Your task to perform on an android device: What's on my calendar today? Image 0: 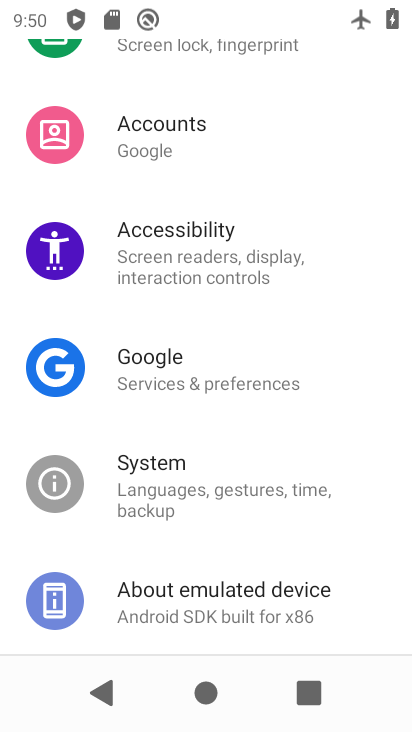
Step 0: press home button
Your task to perform on an android device: What's on my calendar today? Image 1: 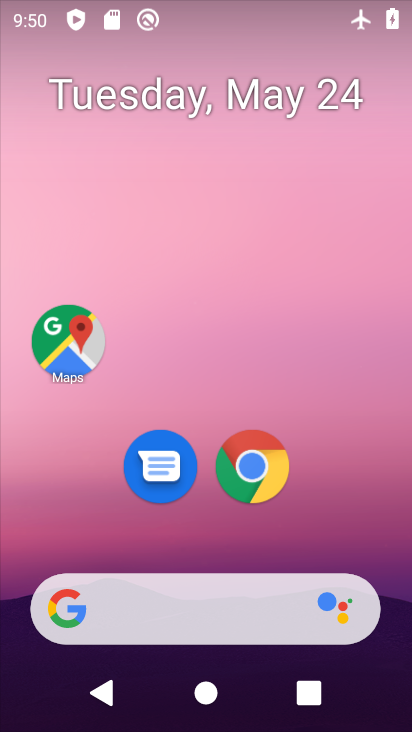
Step 1: drag from (211, 544) to (205, 47)
Your task to perform on an android device: What's on my calendar today? Image 2: 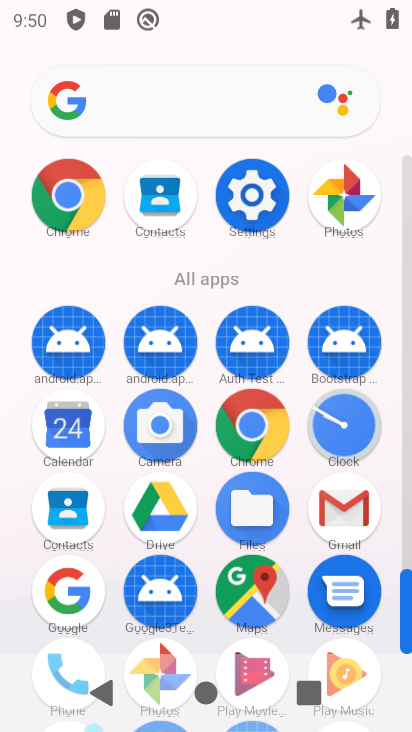
Step 2: click (67, 443)
Your task to perform on an android device: What's on my calendar today? Image 3: 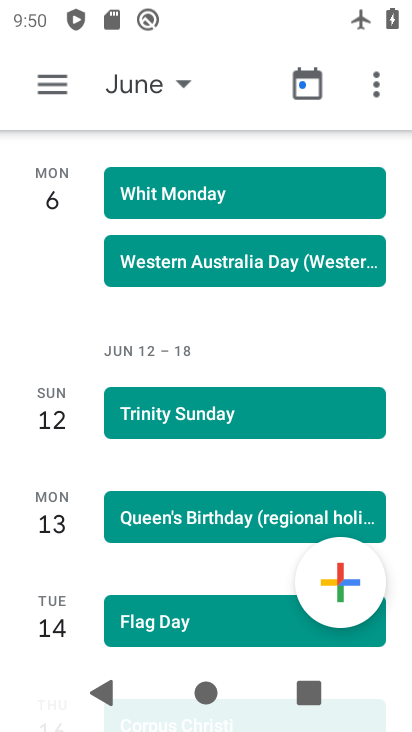
Step 3: click (61, 83)
Your task to perform on an android device: What's on my calendar today? Image 4: 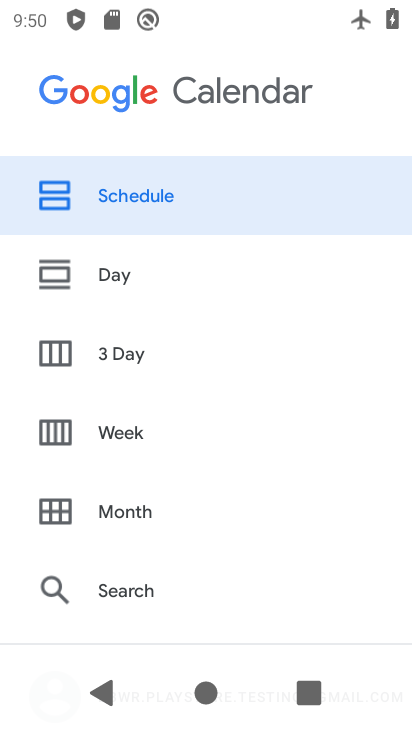
Step 4: click (128, 276)
Your task to perform on an android device: What's on my calendar today? Image 5: 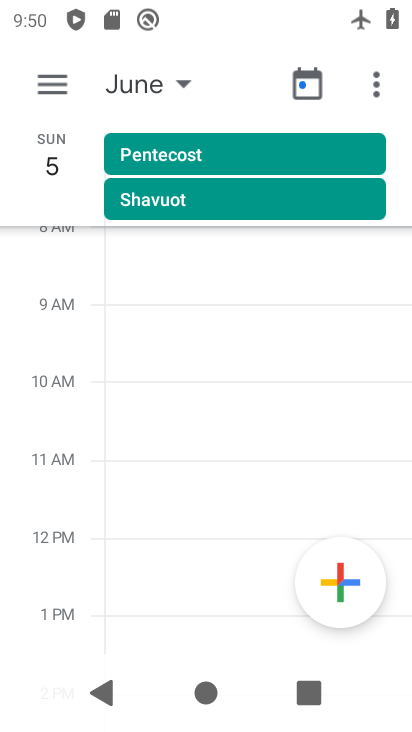
Step 5: click (163, 90)
Your task to perform on an android device: What's on my calendar today? Image 6: 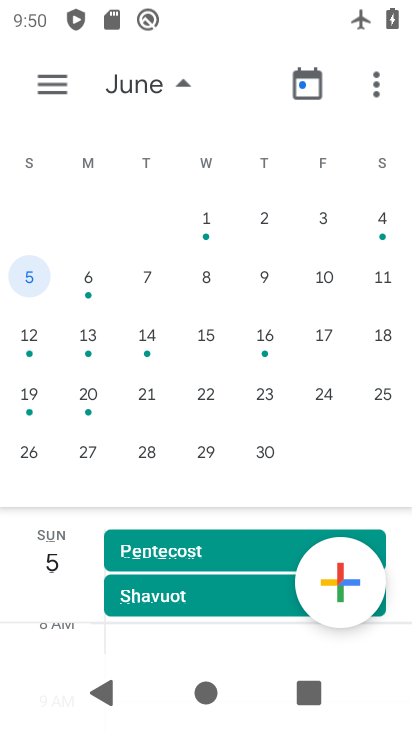
Step 6: drag from (94, 309) to (408, 325)
Your task to perform on an android device: What's on my calendar today? Image 7: 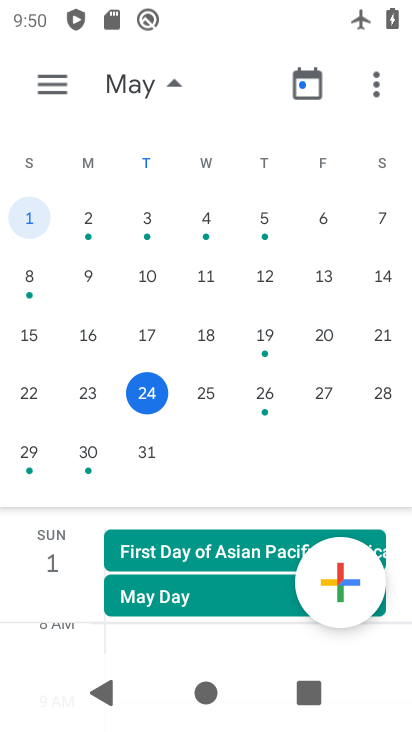
Step 7: click (152, 396)
Your task to perform on an android device: What's on my calendar today? Image 8: 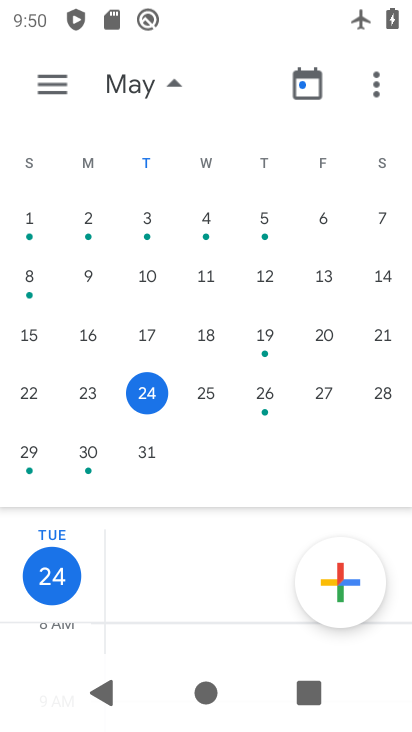
Step 8: click (47, 72)
Your task to perform on an android device: What's on my calendar today? Image 9: 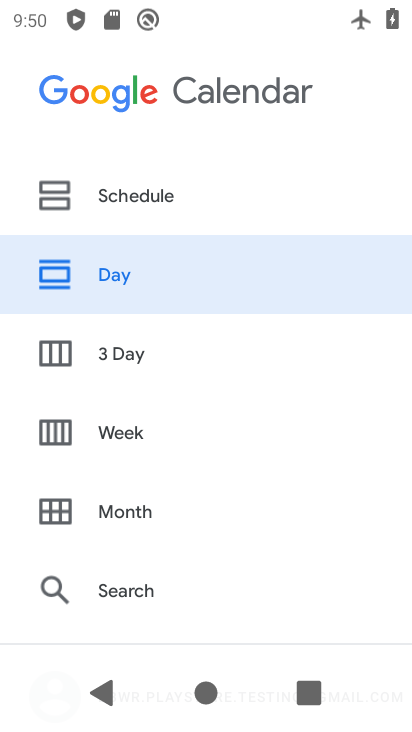
Step 9: click (133, 293)
Your task to perform on an android device: What's on my calendar today? Image 10: 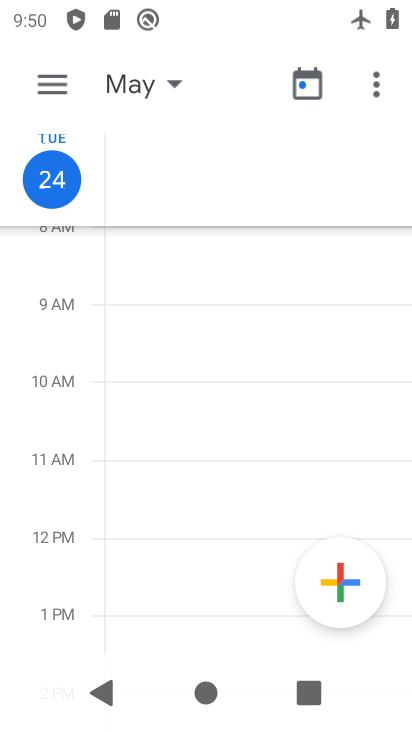
Step 10: task complete